Your task to perform on an android device: Open battery settings Image 0: 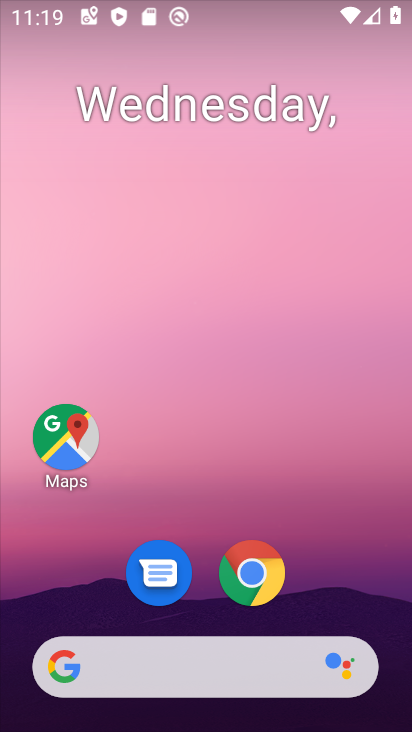
Step 0: drag from (164, 651) to (164, 183)
Your task to perform on an android device: Open battery settings Image 1: 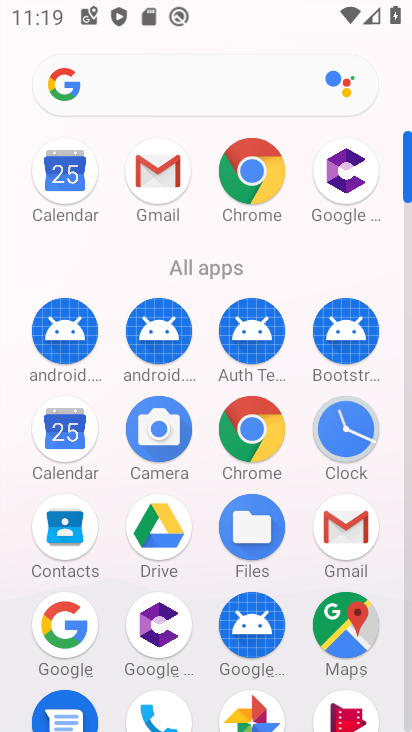
Step 1: drag from (170, 659) to (185, 210)
Your task to perform on an android device: Open battery settings Image 2: 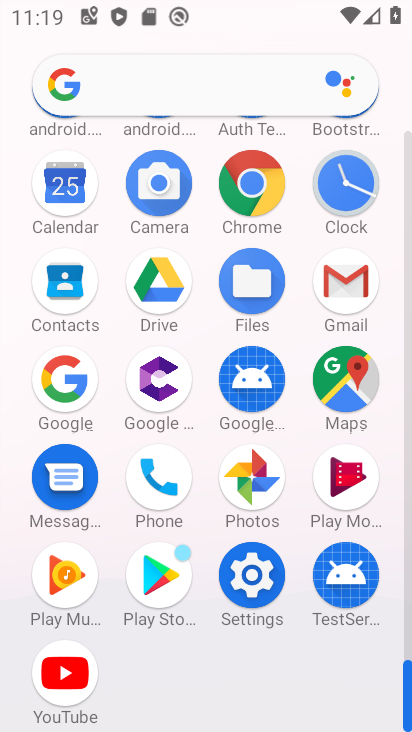
Step 2: click (258, 584)
Your task to perform on an android device: Open battery settings Image 3: 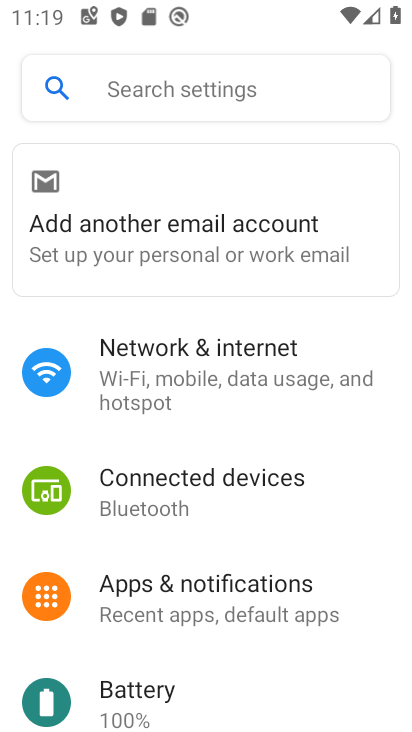
Step 3: click (129, 706)
Your task to perform on an android device: Open battery settings Image 4: 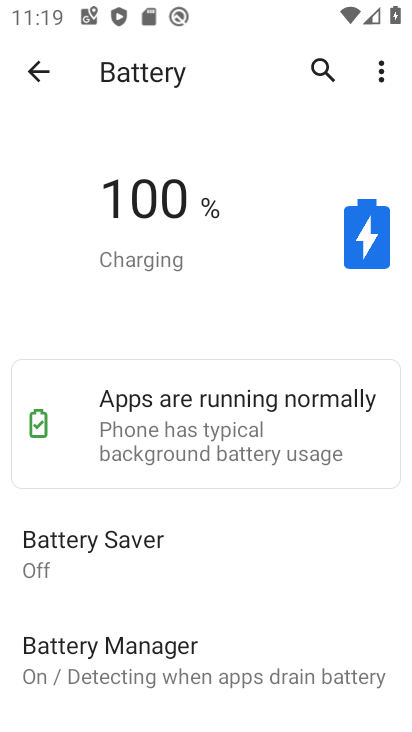
Step 4: task complete